Your task to perform on an android device: visit the assistant section in the google photos Image 0: 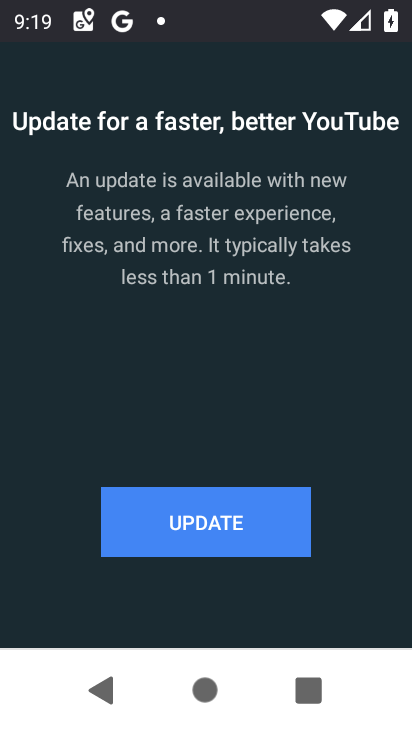
Step 0: press home button
Your task to perform on an android device: visit the assistant section in the google photos Image 1: 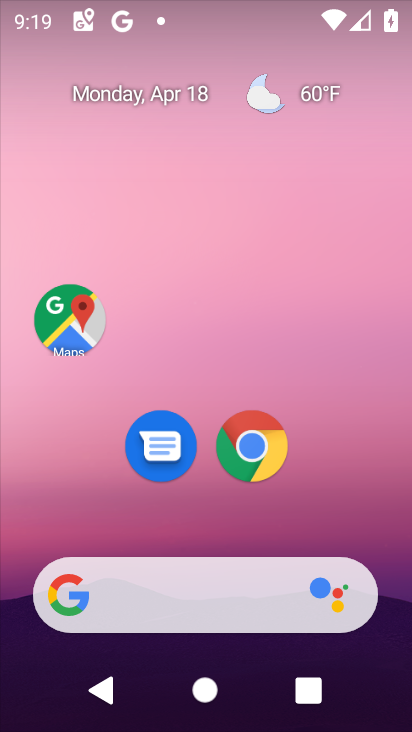
Step 1: drag from (392, 542) to (353, 153)
Your task to perform on an android device: visit the assistant section in the google photos Image 2: 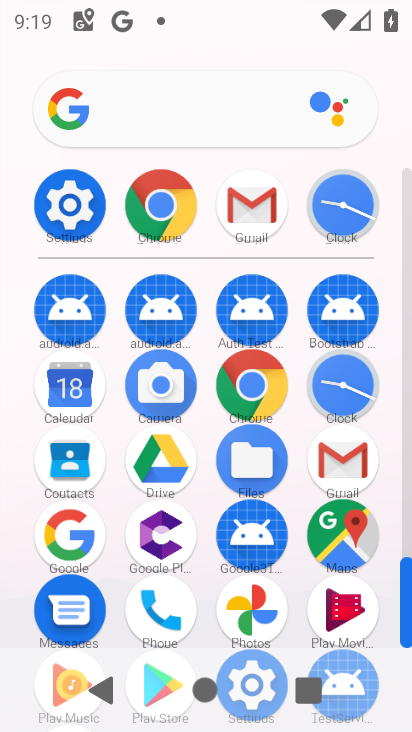
Step 2: click (255, 608)
Your task to perform on an android device: visit the assistant section in the google photos Image 3: 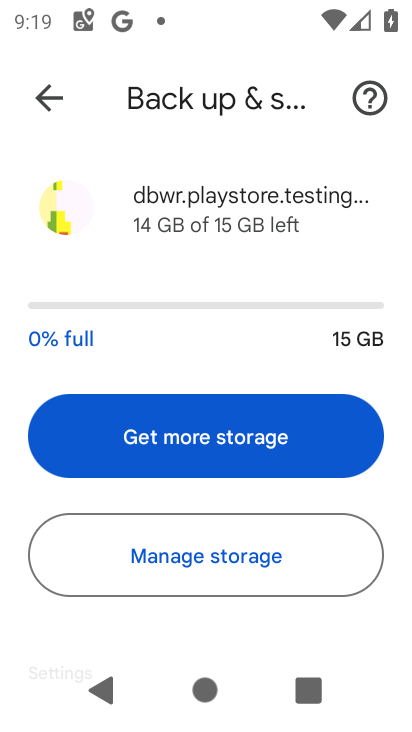
Step 3: click (50, 97)
Your task to perform on an android device: visit the assistant section in the google photos Image 4: 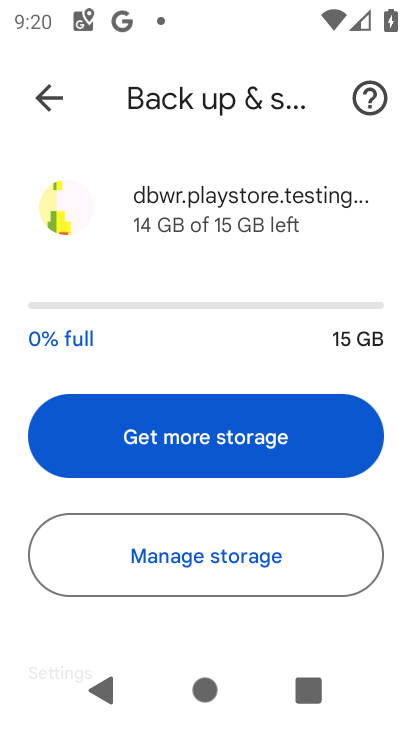
Step 4: click (45, 94)
Your task to perform on an android device: visit the assistant section in the google photos Image 5: 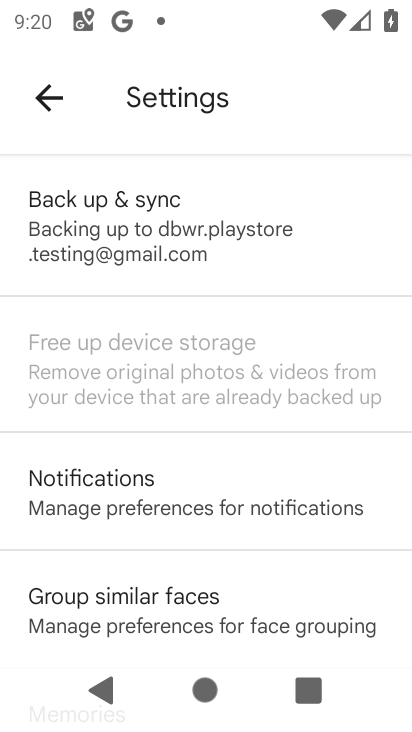
Step 5: click (44, 100)
Your task to perform on an android device: visit the assistant section in the google photos Image 6: 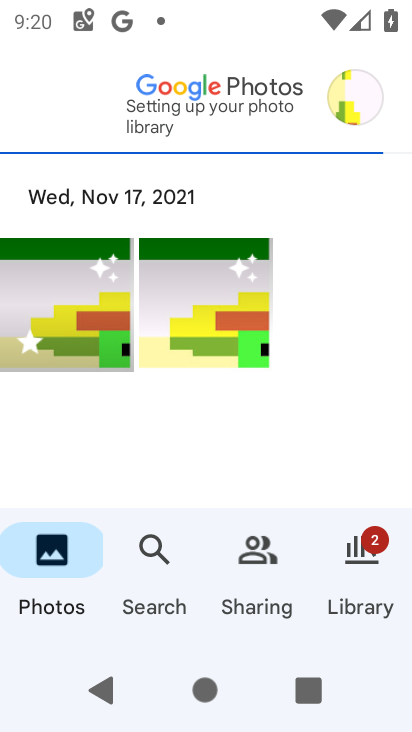
Step 6: click (363, 95)
Your task to perform on an android device: visit the assistant section in the google photos Image 7: 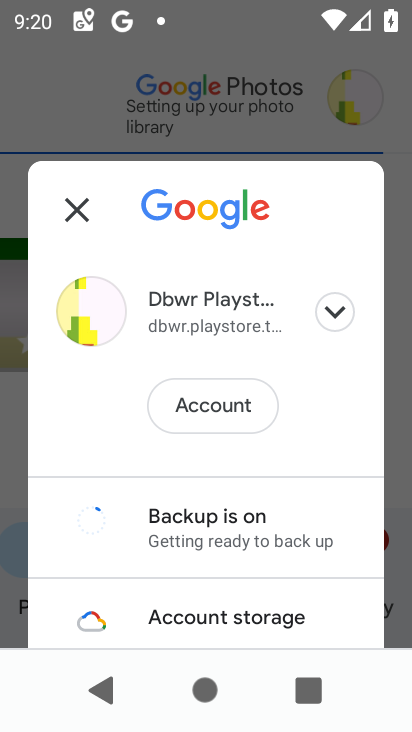
Step 7: drag from (311, 554) to (287, 231)
Your task to perform on an android device: visit the assistant section in the google photos Image 8: 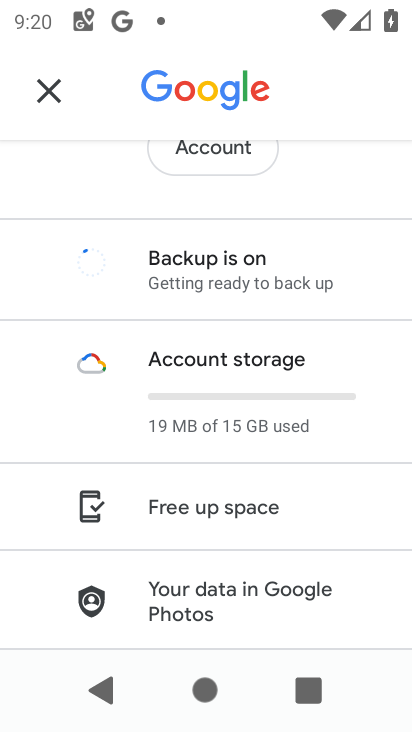
Step 8: drag from (343, 582) to (348, 296)
Your task to perform on an android device: visit the assistant section in the google photos Image 9: 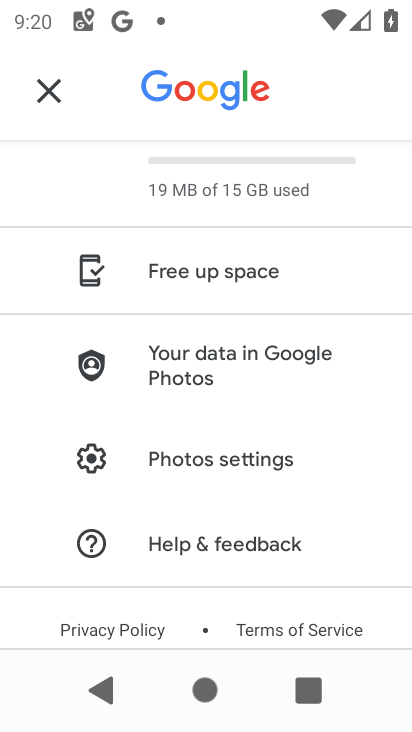
Step 9: click (61, 92)
Your task to perform on an android device: visit the assistant section in the google photos Image 10: 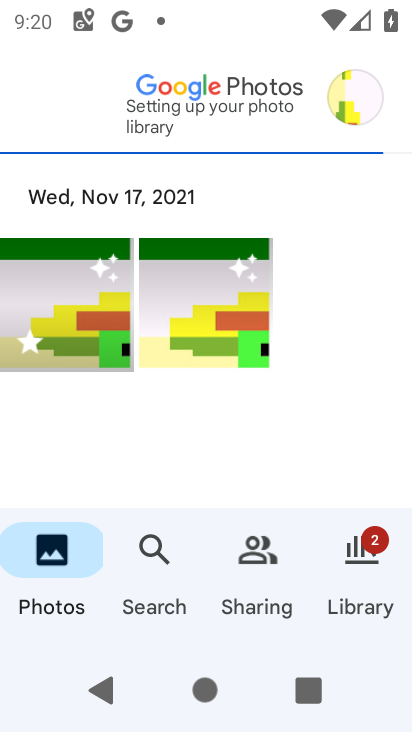
Step 10: click (356, 577)
Your task to perform on an android device: visit the assistant section in the google photos Image 11: 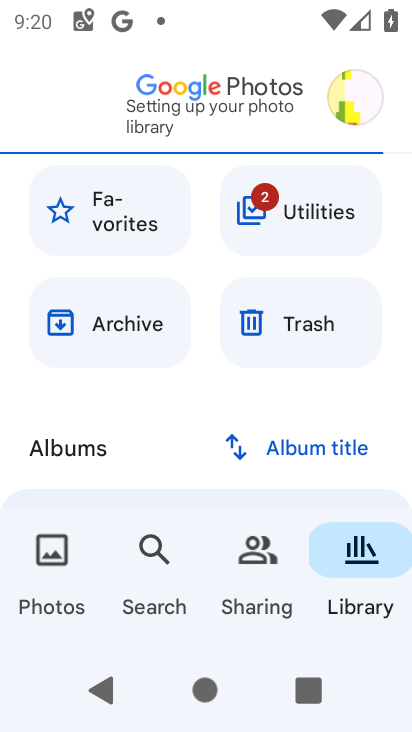
Step 11: task complete